Your task to perform on an android device: Go to eBay Image 0: 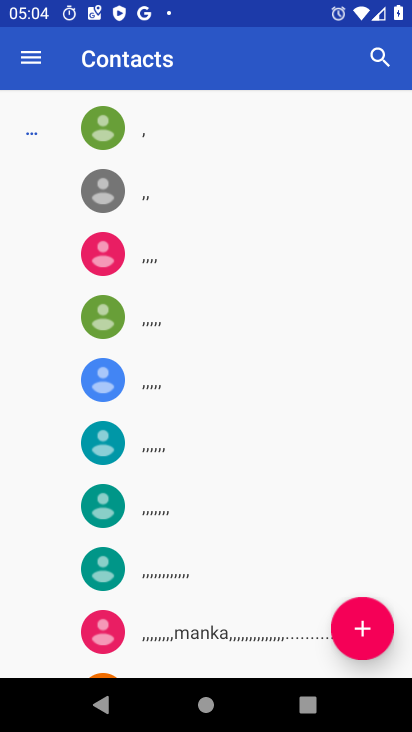
Step 0: press back button
Your task to perform on an android device: Go to eBay Image 1: 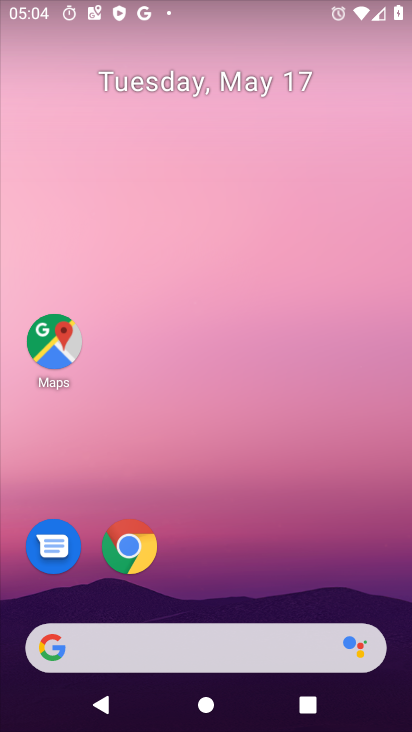
Step 1: drag from (400, 385) to (398, 306)
Your task to perform on an android device: Go to eBay Image 2: 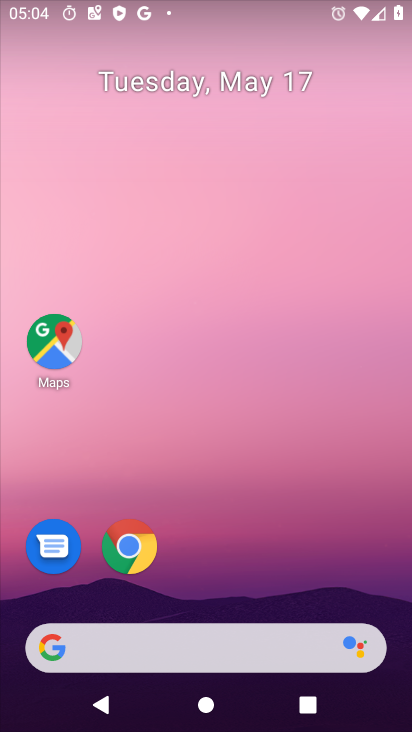
Step 2: drag from (395, 689) to (405, 363)
Your task to perform on an android device: Go to eBay Image 3: 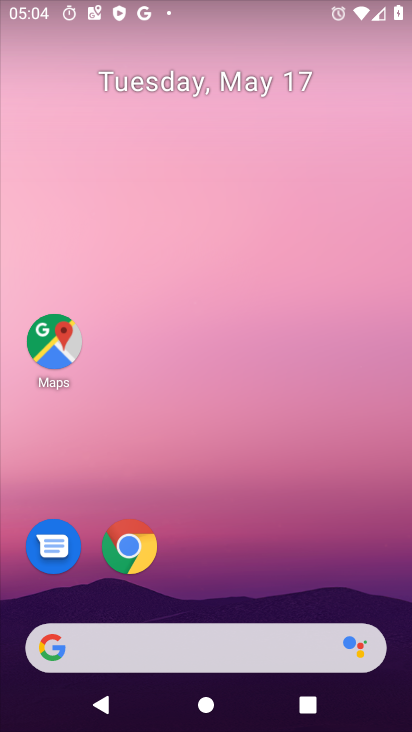
Step 3: drag from (395, 688) to (354, 289)
Your task to perform on an android device: Go to eBay Image 4: 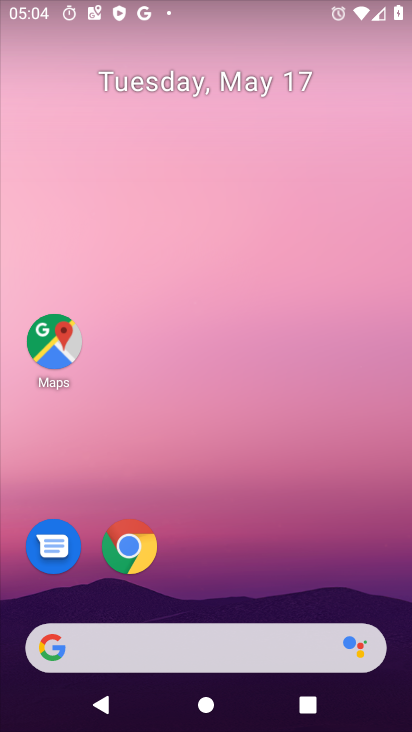
Step 4: drag from (397, 684) to (406, 565)
Your task to perform on an android device: Go to eBay Image 5: 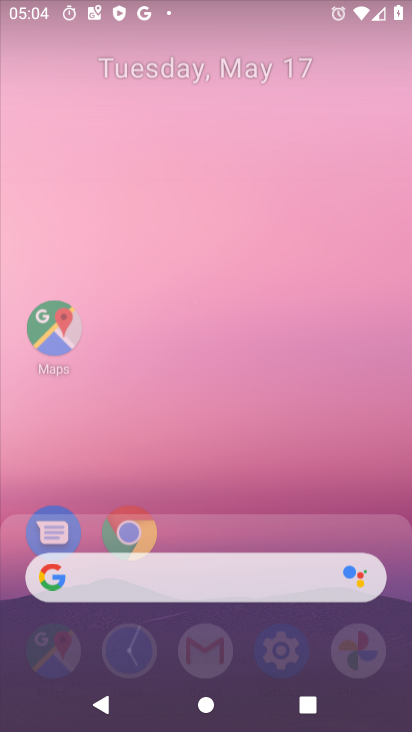
Step 5: drag from (394, 681) to (364, 235)
Your task to perform on an android device: Go to eBay Image 6: 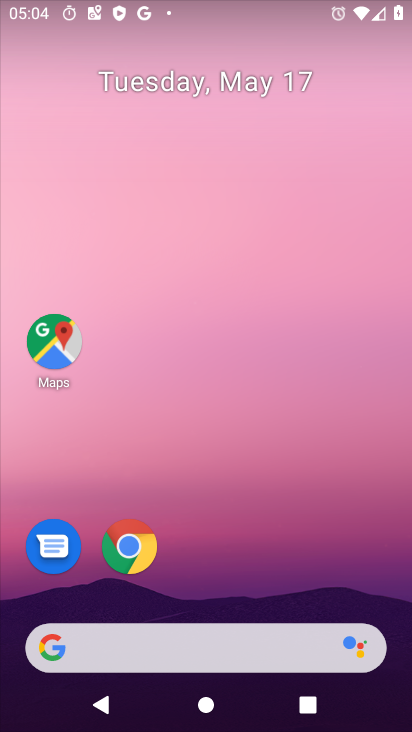
Step 6: click (115, 541)
Your task to perform on an android device: Go to eBay Image 7: 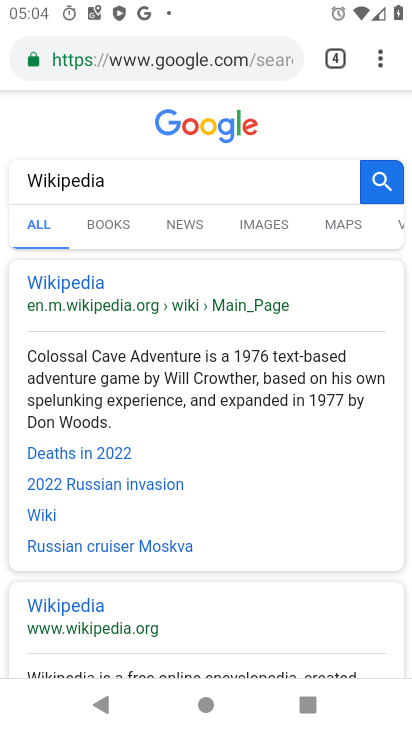
Step 7: click (295, 58)
Your task to perform on an android device: Go to eBay Image 8: 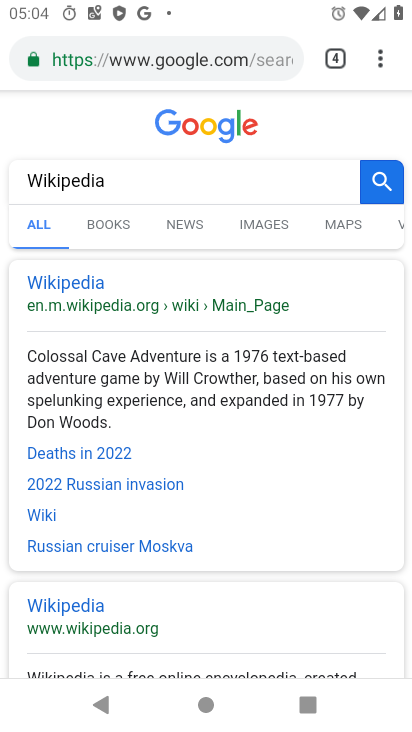
Step 8: click (276, 57)
Your task to perform on an android device: Go to eBay Image 9: 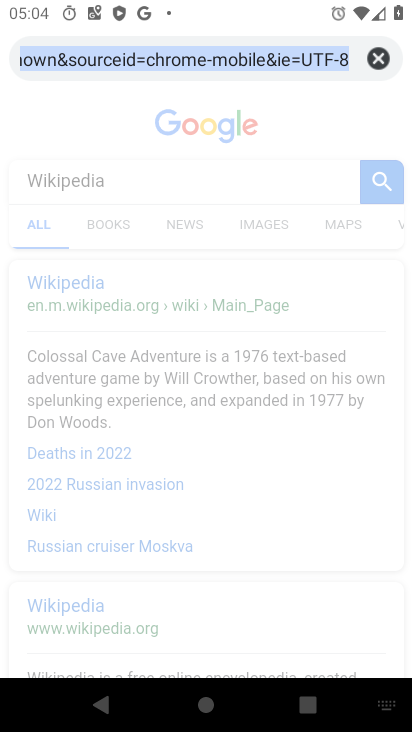
Step 9: click (379, 50)
Your task to perform on an android device: Go to eBay Image 10: 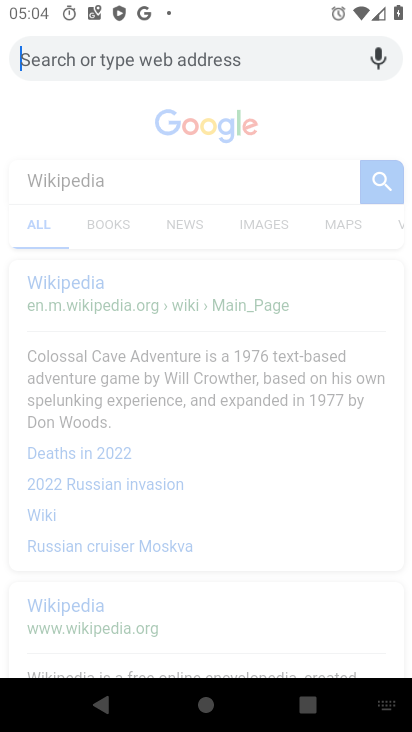
Step 10: type " eBay"
Your task to perform on an android device: Go to eBay Image 11: 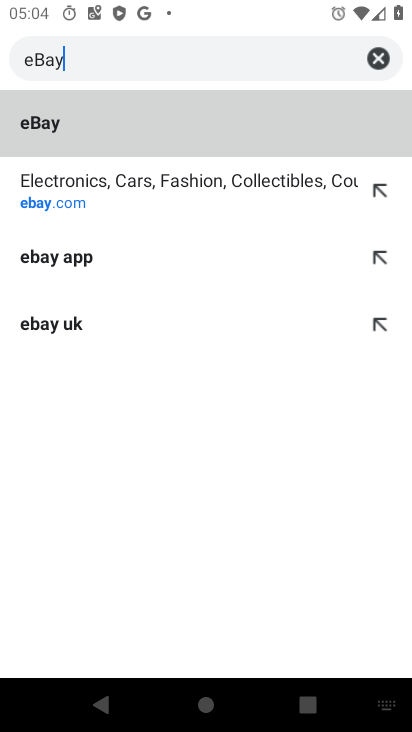
Step 11: click (49, 126)
Your task to perform on an android device: Go to eBay Image 12: 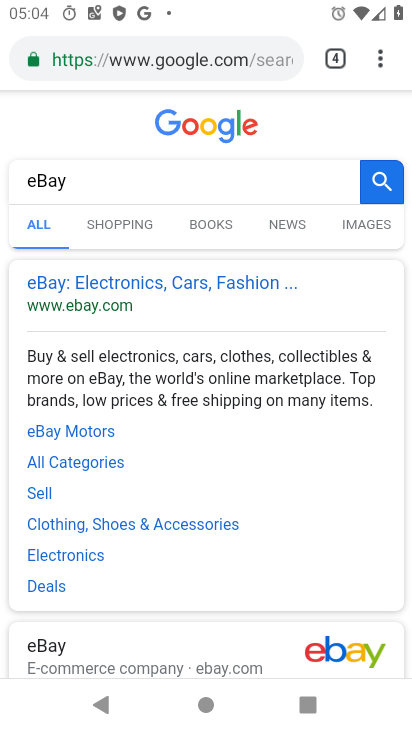
Step 12: task complete